Your task to perform on an android device: check google app version Image 0: 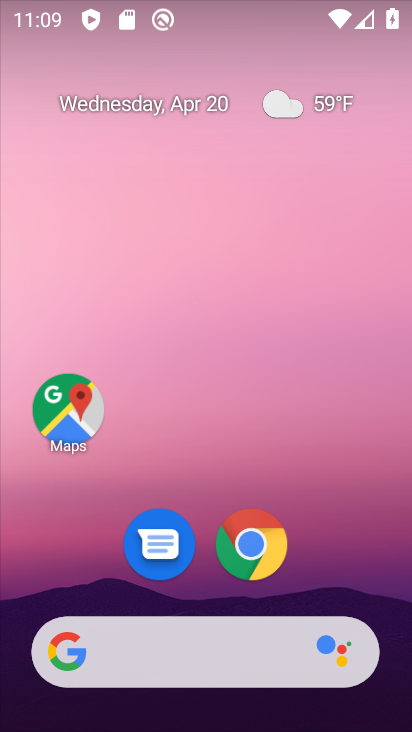
Step 0: drag from (272, 606) to (320, 95)
Your task to perform on an android device: check google app version Image 1: 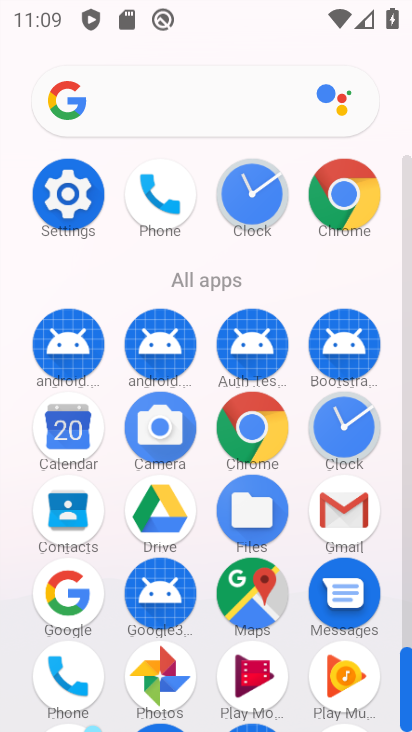
Step 1: click (81, 599)
Your task to perform on an android device: check google app version Image 2: 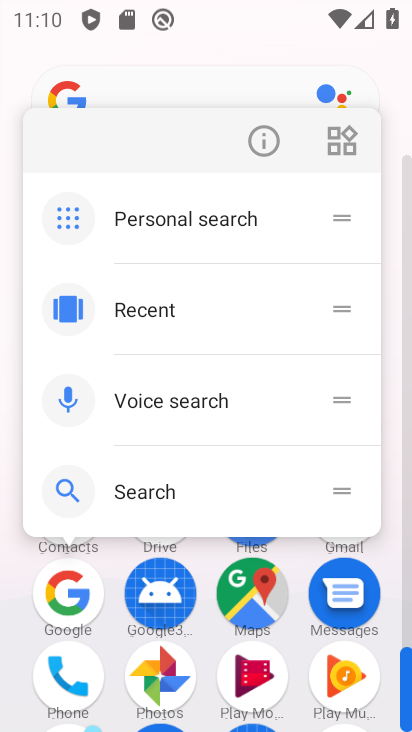
Step 2: click (260, 145)
Your task to perform on an android device: check google app version Image 3: 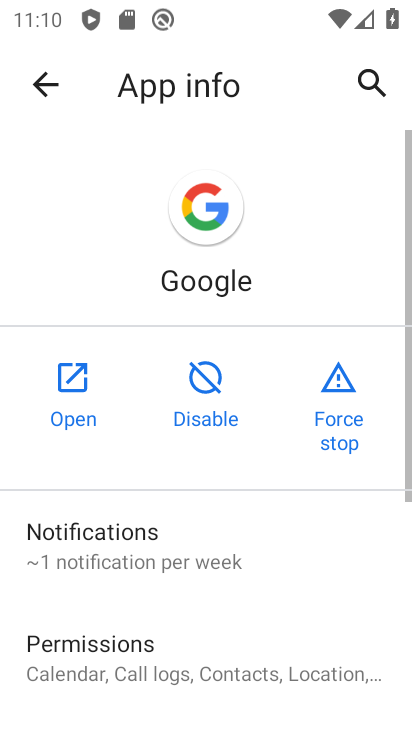
Step 3: drag from (285, 653) to (360, 179)
Your task to perform on an android device: check google app version Image 4: 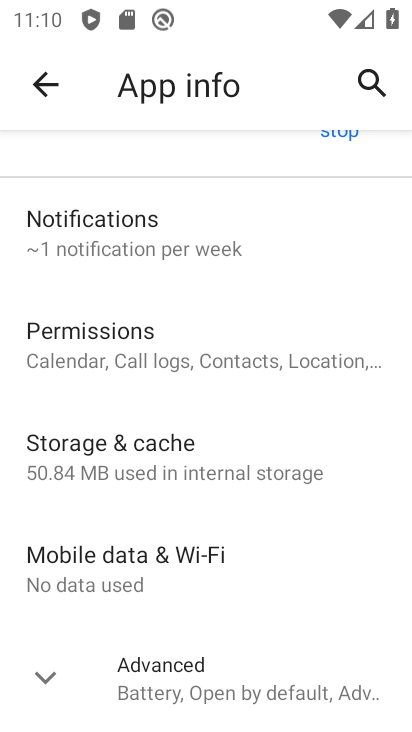
Step 4: click (260, 687)
Your task to perform on an android device: check google app version Image 5: 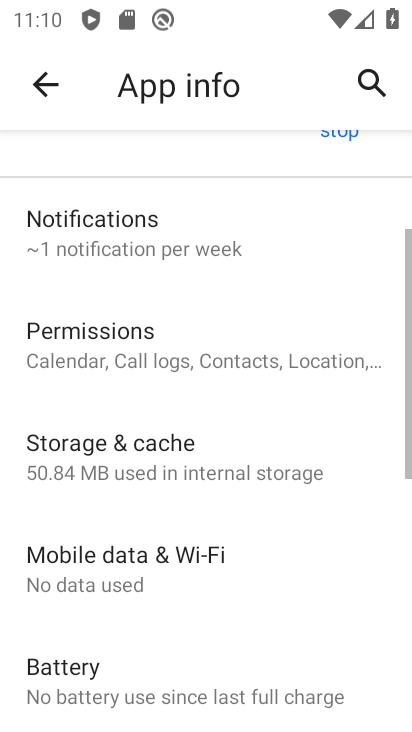
Step 5: task complete